Your task to perform on an android device: turn notification dots on Image 0: 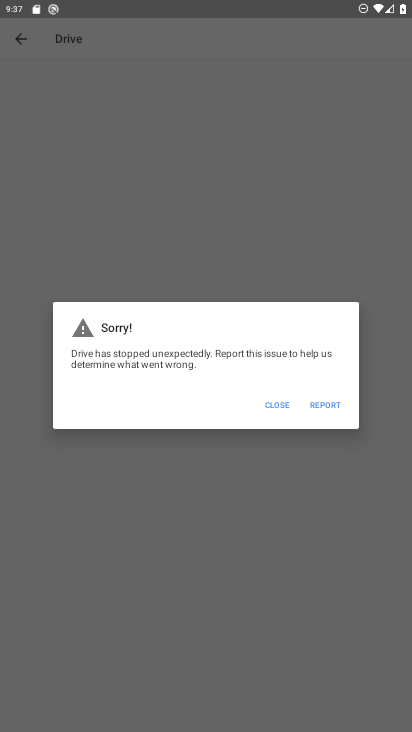
Step 0: press home button
Your task to perform on an android device: turn notification dots on Image 1: 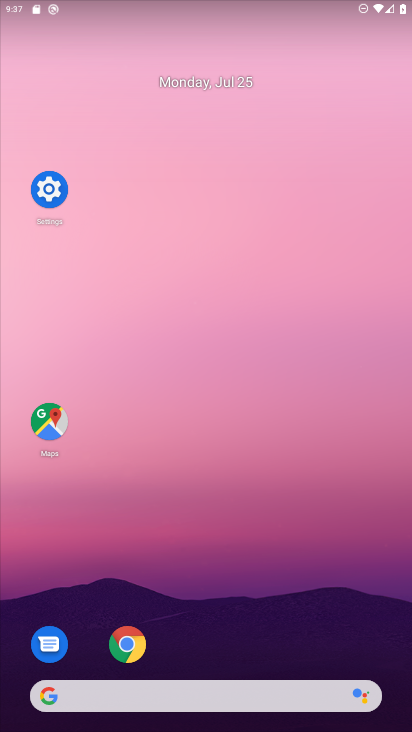
Step 1: click (47, 169)
Your task to perform on an android device: turn notification dots on Image 2: 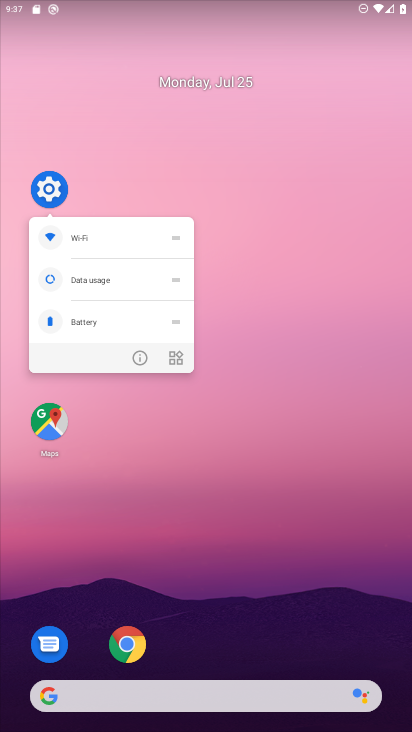
Step 2: click (47, 169)
Your task to perform on an android device: turn notification dots on Image 3: 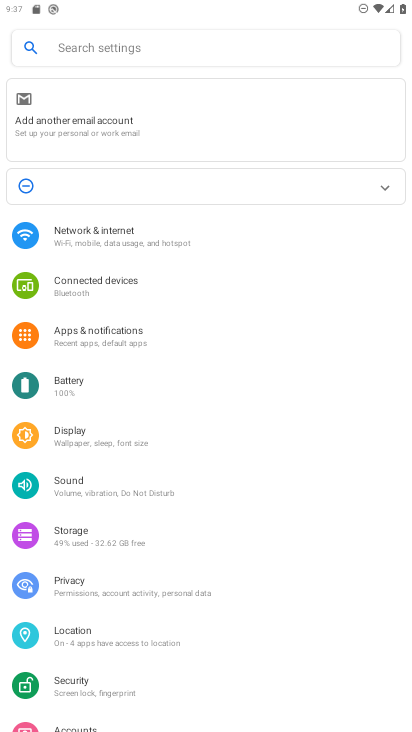
Step 3: drag from (235, 621) to (267, 206)
Your task to perform on an android device: turn notification dots on Image 4: 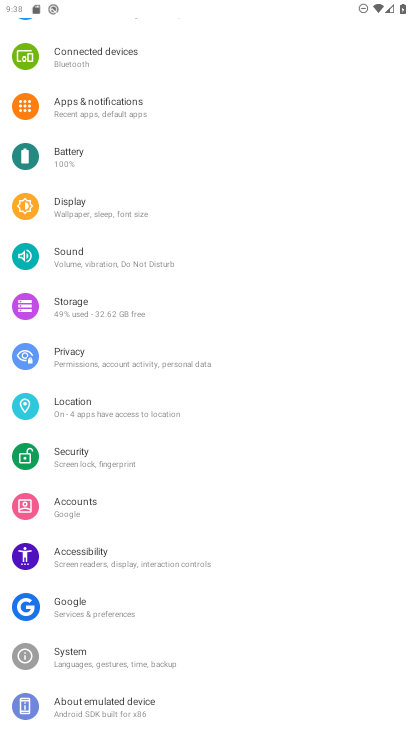
Step 4: click (105, 120)
Your task to perform on an android device: turn notification dots on Image 5: 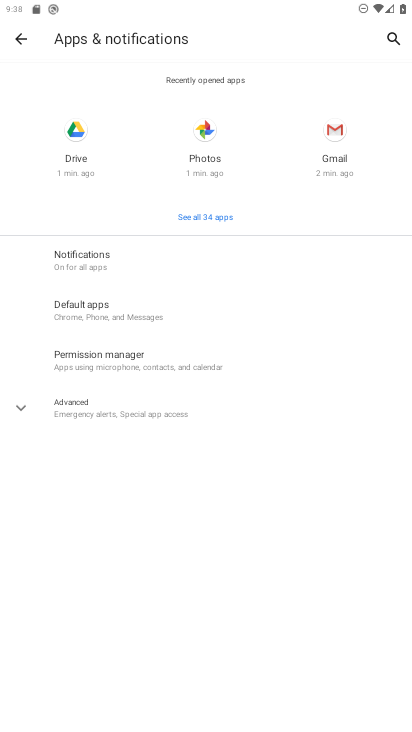
Step 5: click (111, 250)
Your task to perform on an android device: turn notification dots on Image 6: 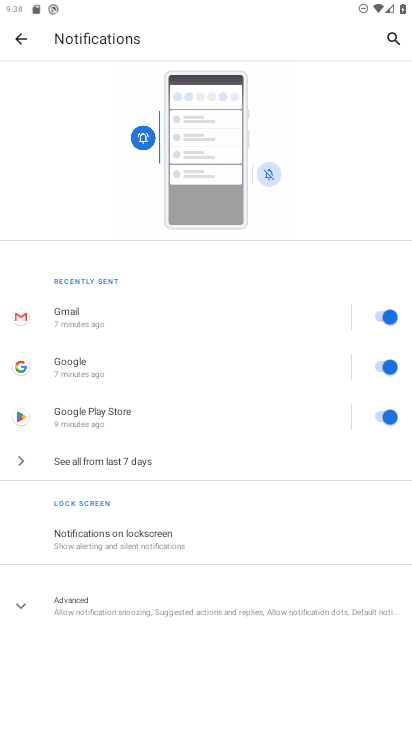
Step 6: click (101, 611)
Your task to perform on an android device: turn notification dots on Image 7: 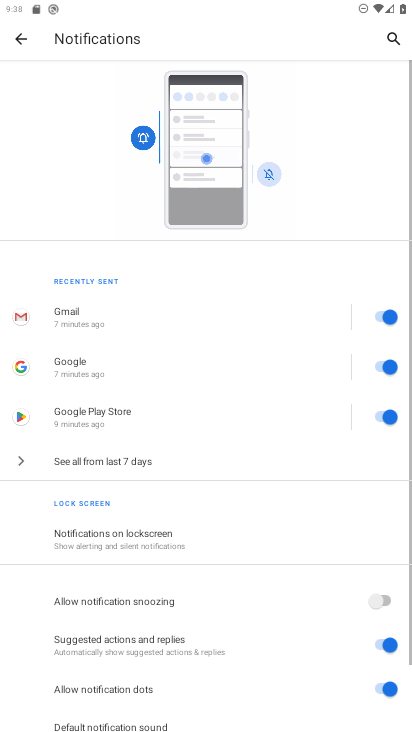
Step 7: drag from (101, 611) to (172, 298)
Your task to perform on an android device: turn notification dots on Image 8: 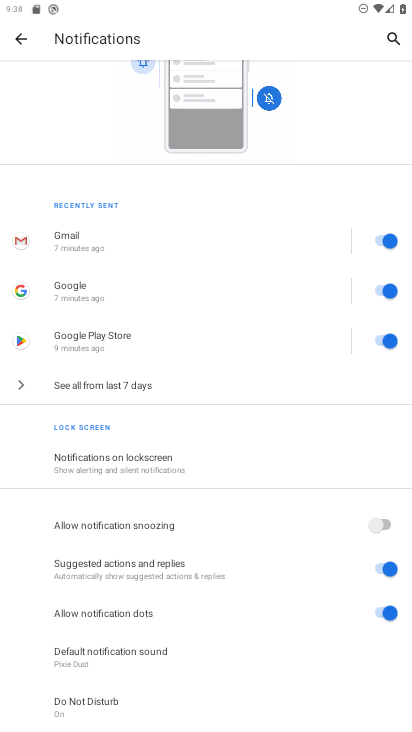
Step 8: click (386, 620)
Your task to perform on an android device: turn notification dots on Image 9: 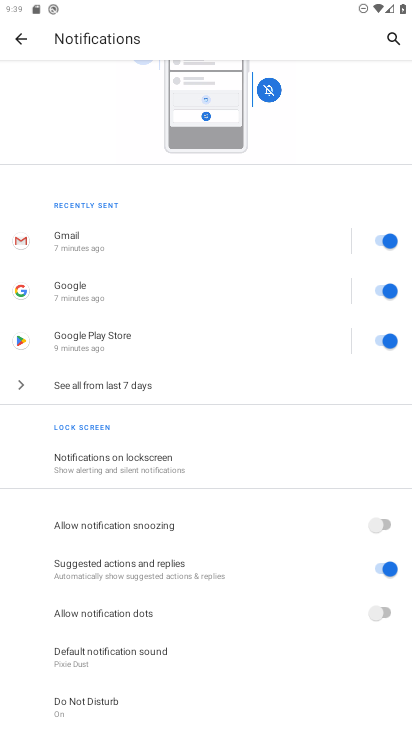
Step 9: task complete